Your task to perform on an android device: turn off javascript in the chrome app Image 0: 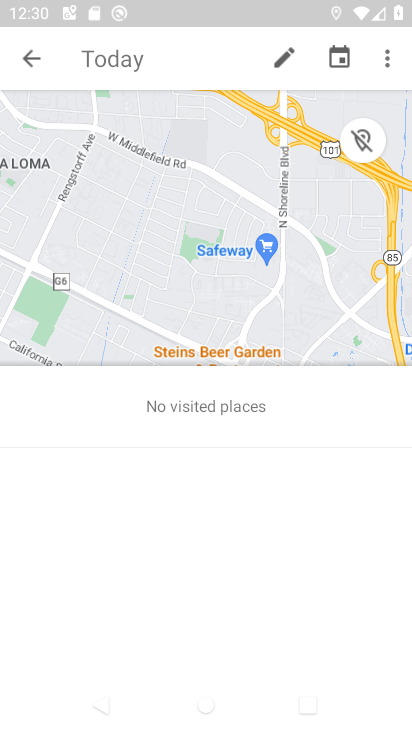
Step 0: press home button
Your task to perform on an android device: turn off javascript in the chrome app Image 1: 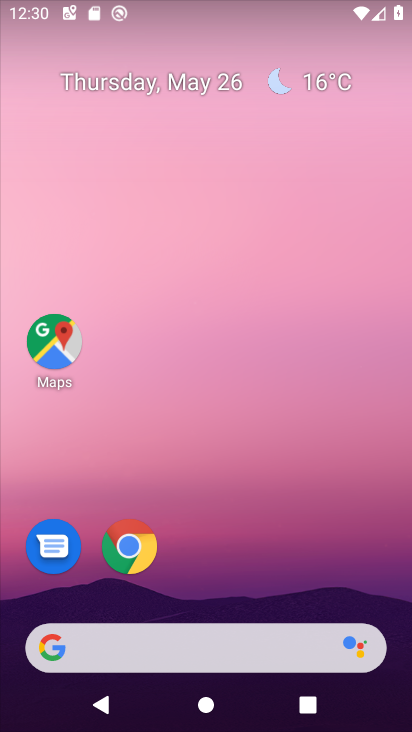
Step 1: drag from (154, 588) to (172, 249)
Your task to perform on an android device: turn off javascript in the chrome app Image 2: 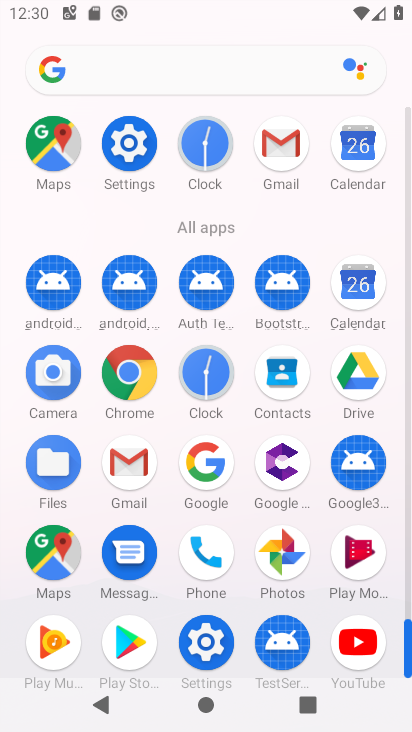
Step 2: click (133, 372)
Your task to perform on an android device: turn off javascript in the chrome app Image 3: 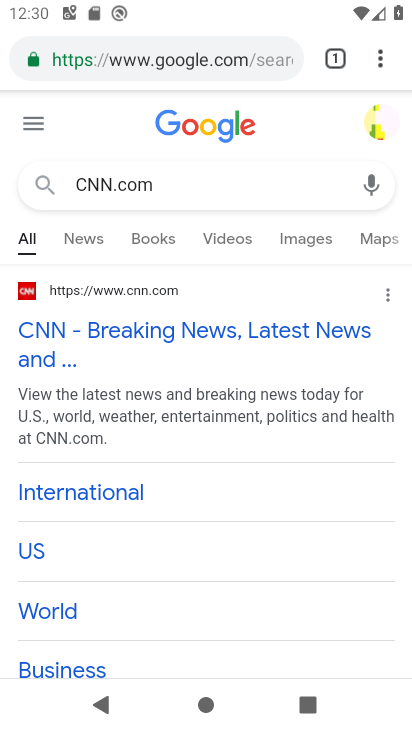
Step 3: click (376, 61)
Your task to perform on an android device: turn off javascript in the chrome app Image 4: 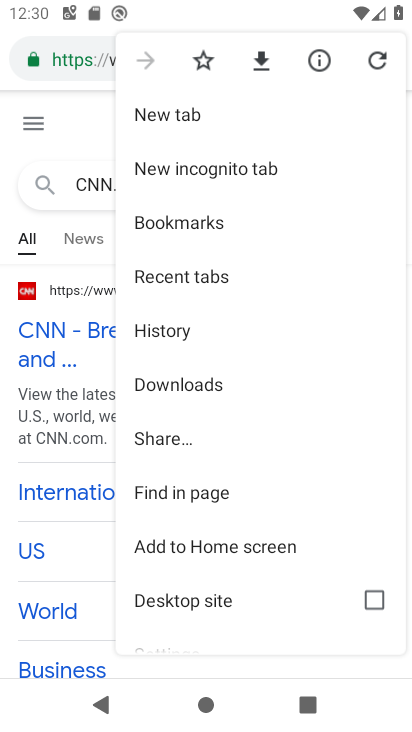
Step 4: drag from (206, 571) to (295, 243)
Your task to perform on an android device: turn off javascript in the chrome app Image 5: 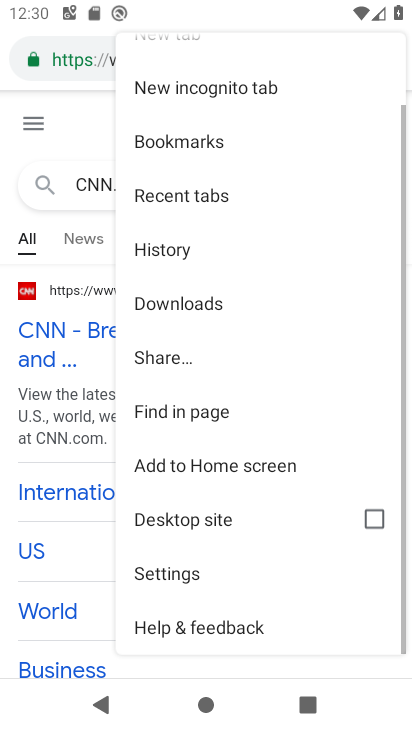
Step 5: click (159, 564)
Your task to perform on an android device: turn off javascript in the chrome app Image 6: 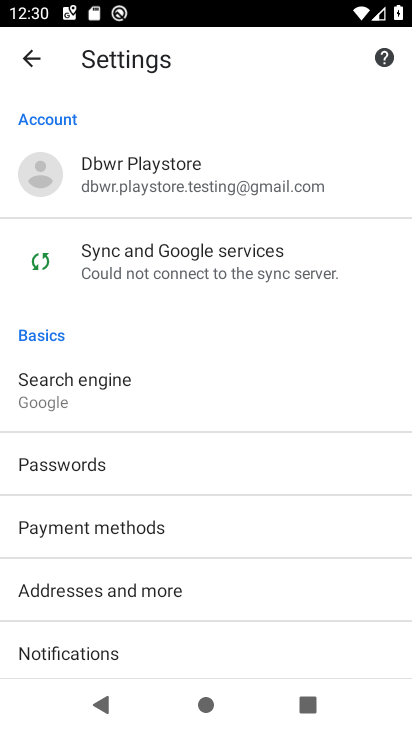
Step 6: drag from (152, 619) to (221, 244)
Your task to perform on an android device: turn off javascript in the chrome app Image 7: 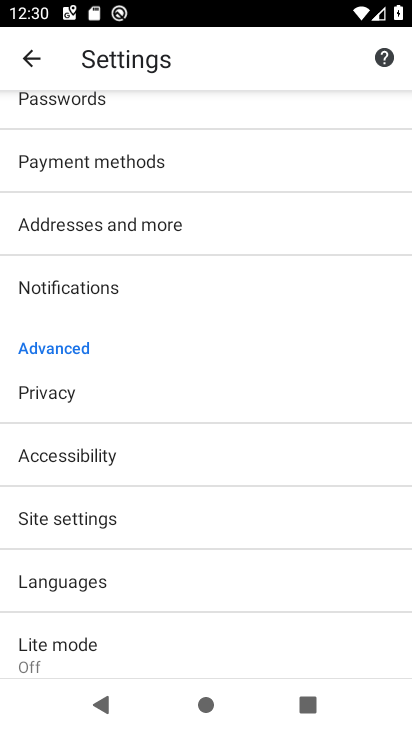
Step 7: drag from (110, 591) to (164, 256)
Your task to perform on an android device: turn off javascript in the chrome app Image 8: 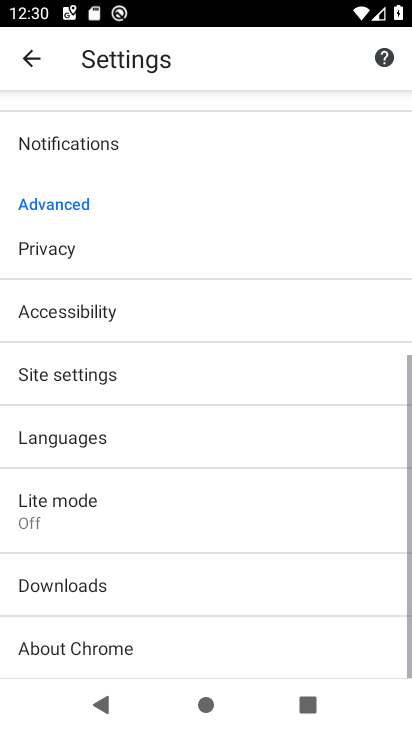
Step 8: click (50, 374)
Your task to perform on an android device: turn off javascript in the chrome app Image 9: 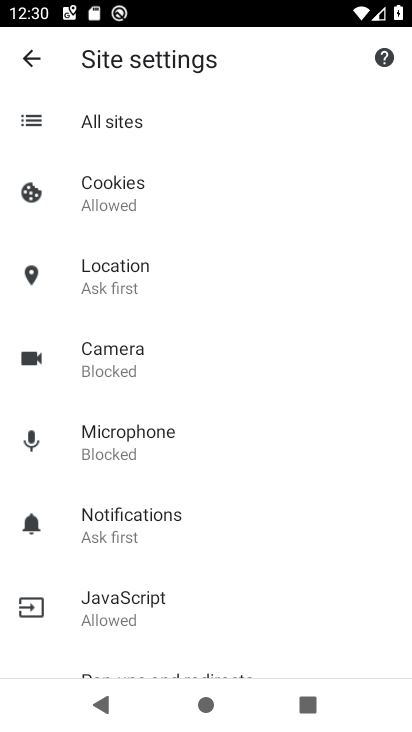
Step 9: click (132, 621)
Your task to perform on an android device: turn off javascript in the chrome app Image 10: 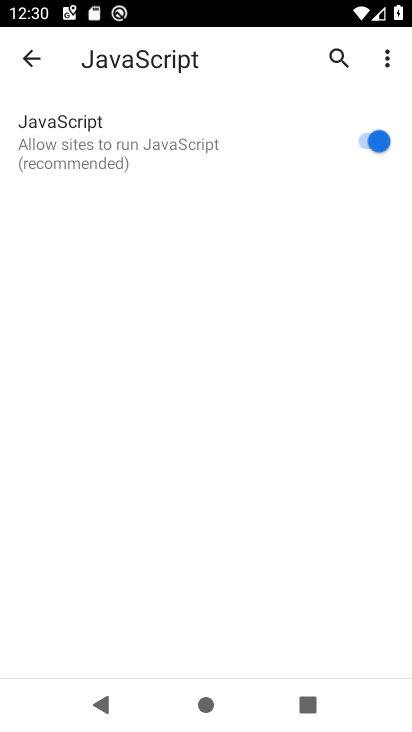
Step 10: click (363, 142)
Your task to perform on an android device: turn off javascript in the chrome app Image 11: 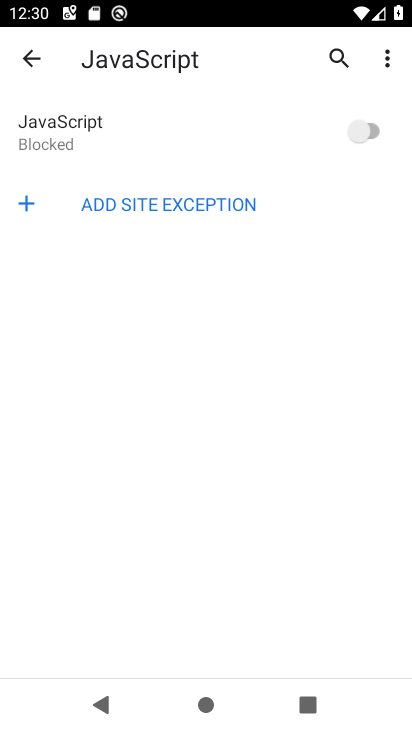
Step 11: task complete